Your task to perform on an android device: Open Google Chrome Image 0: 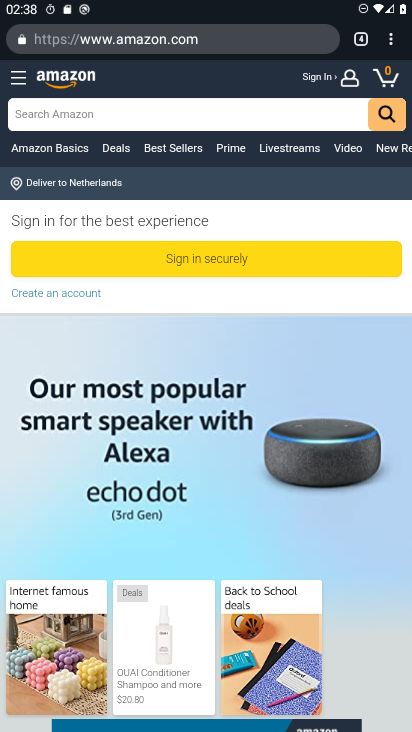
Step 0: task complete